Your task to perform on an android device: change timer sound Image 0: 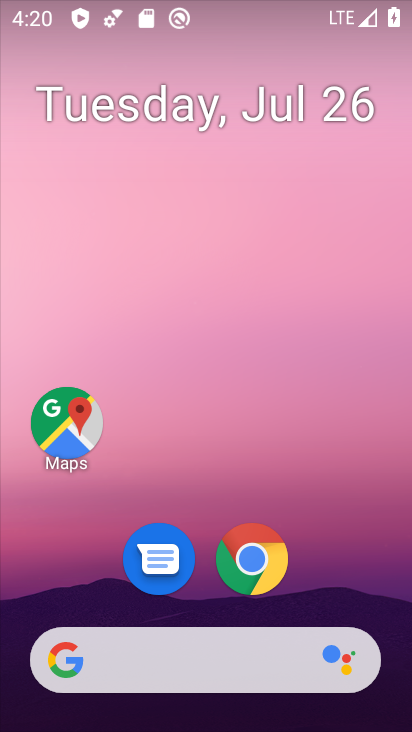
Step 0: drag from (81, 600) to (223, 23)
Your task to perform on an android device: change timer sound Image 1: 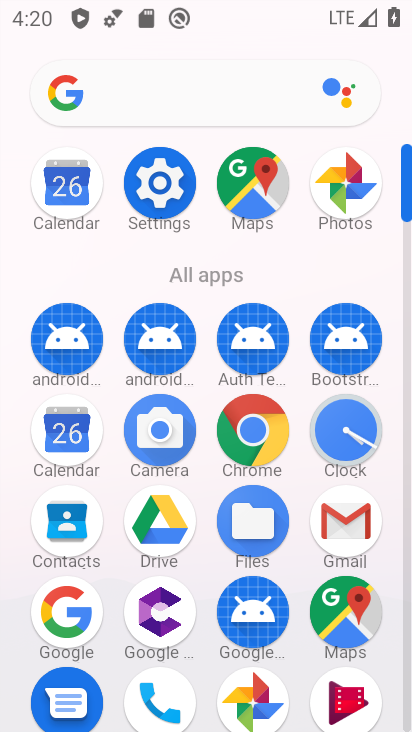
Step 1: click (347, 421)
Your task to perform on an android device: change timer sound Image 2: 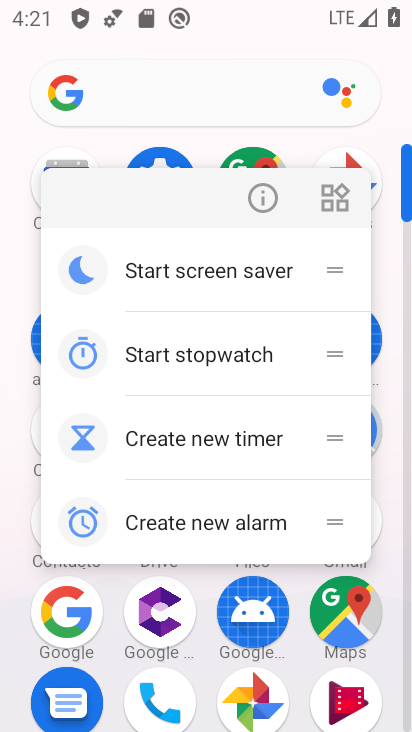
Step 2: click (364, 583)
Your task to perform on an android device: change timer sound Image 3: 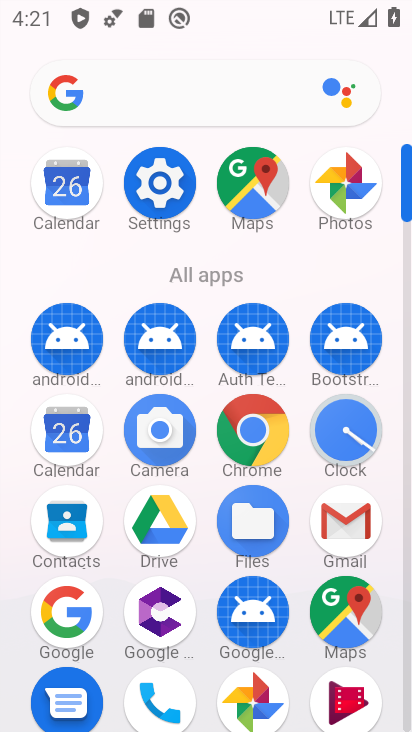
Step 3: click (332, 436)
Your task to perform on an android device: change timer sound Image 4: 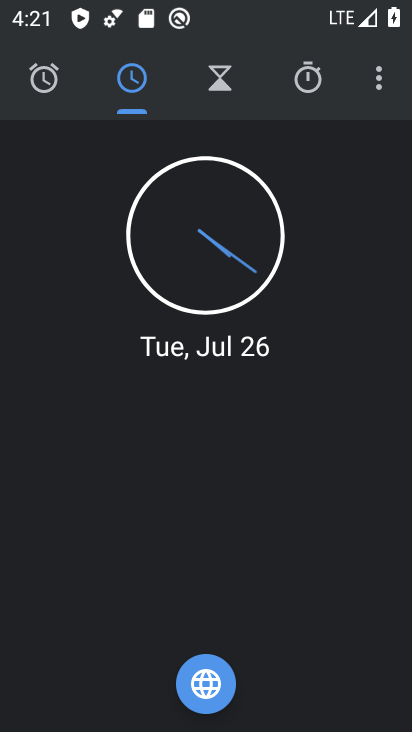
Step 4: click (385, 73)
Your task to perform on an android device: change timer sound Image 5: 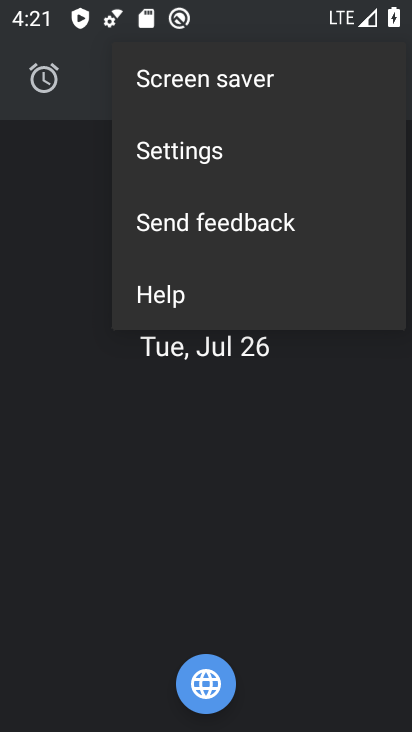
Step 5: click (197, 146)
Your task to perform on an android device: change timer sound Image 6: 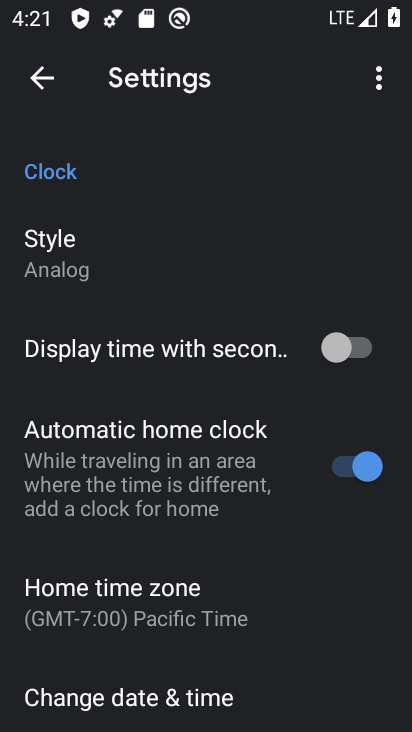
Step 6: drag from (154, 637) to (261, 13)
Your task to perform on an android device: change timer sound Image 7: 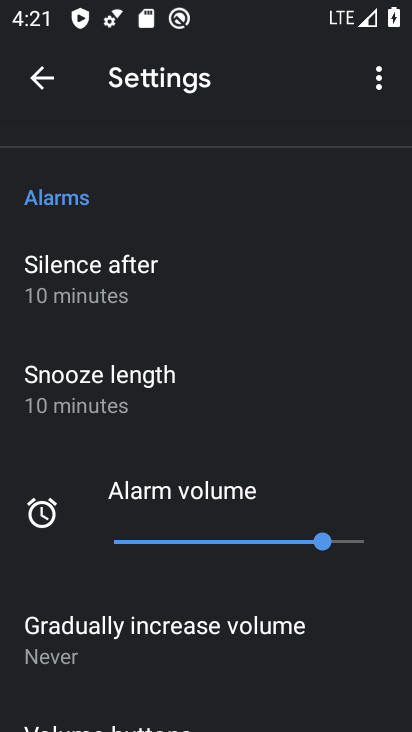
Step 7: drag from (156, 628) to (252, 101)
Your task to perform on an android device: change timer sound Image 8: 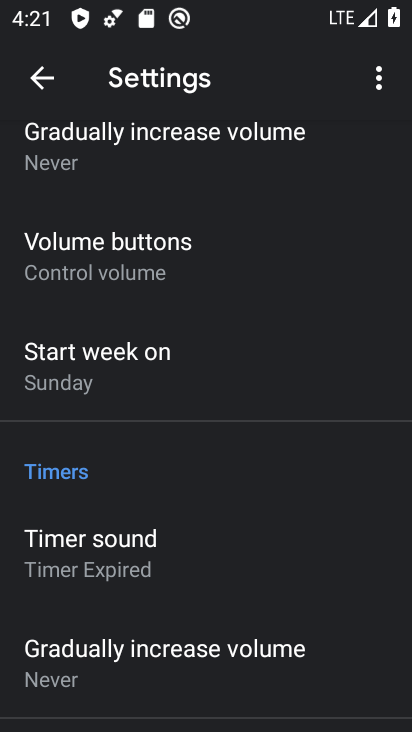
Step 8: click (104, 555)
Your task to perform on an android device: change timer sound Image 9: 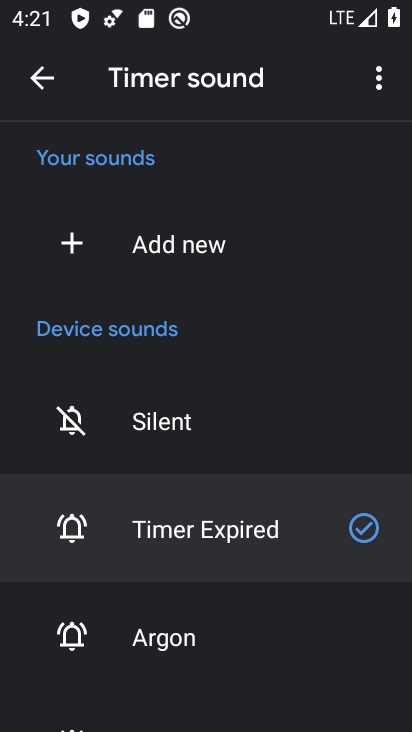
Step 9: click (159, 649)
Your task to perform on an android device: change timer sound Image 10: 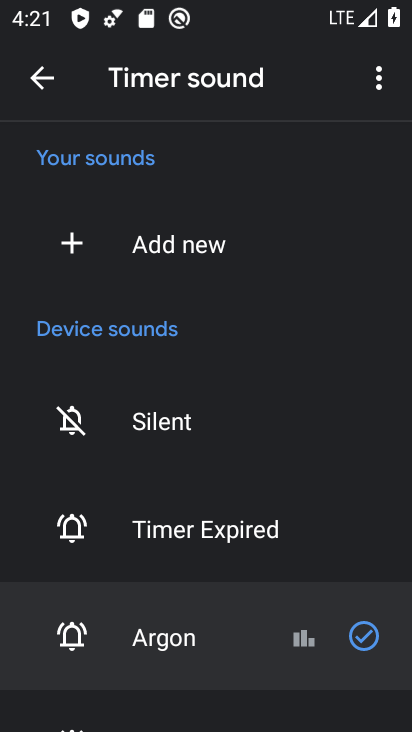
Step 10: task complete